Your task to perform on an android device: open app "Pluto TV - Live TV and Movies" (install if not already installed) Image 0: 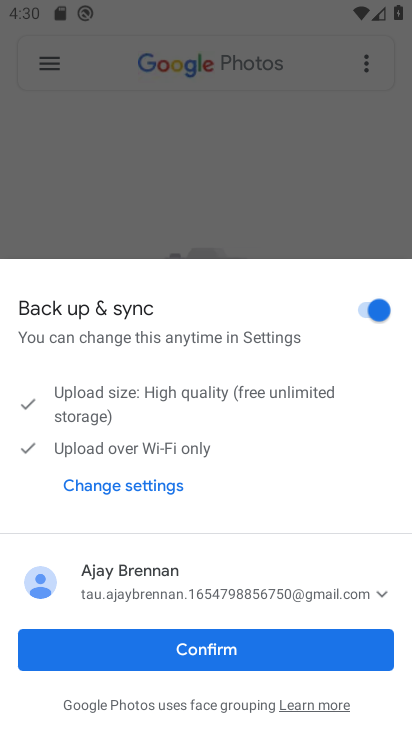
Step 0: press home button
Your task to perform on an android device: open app "Pluto TV - Live TV and Movies" (install if not already installed) Image 1: 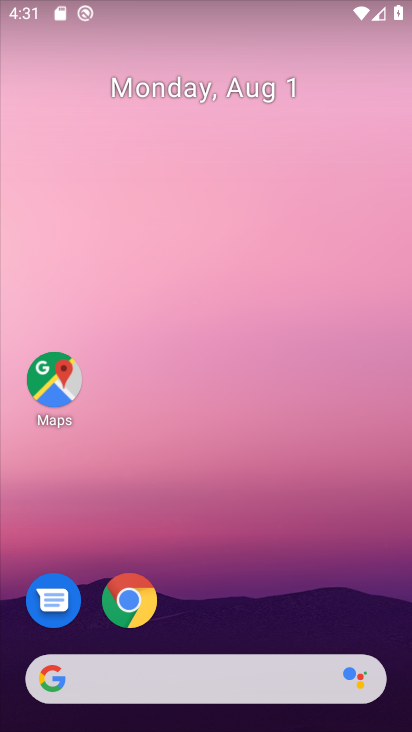
Step 1: drag from (267, 482) to (186, 102)
Your task to perform on an android device: open app "Pluto TV - Live TV and Movies" (install if not already installed) Image 2: 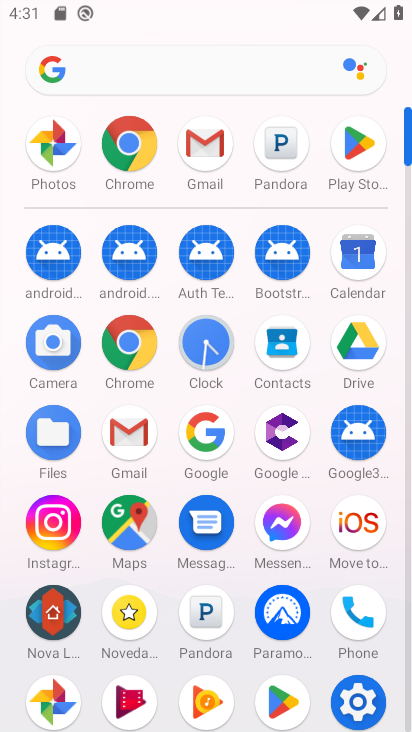
Step 2: click (360, 142)
Your task to perform on an android device: open app "Pluto TV - Live TV and Movies" (install if not already installed) Image 3: 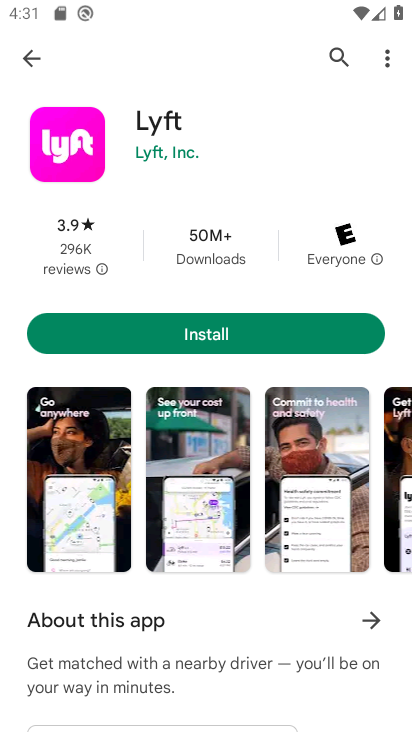
Step 3: click (334, 48)
Your task to perform on an android device: open app "Pluto TV - Live TV and Movies" (install if not already installed) Image 4: 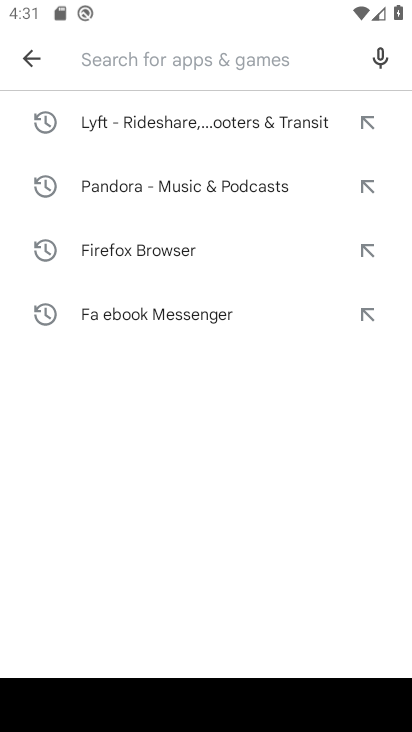
Step 4: type "Pluto TV - Live TV and Movies"
Your task to perform on an android device: open app "Pluto TV - Live TV and Movies" (install if not already installed) Image 5: 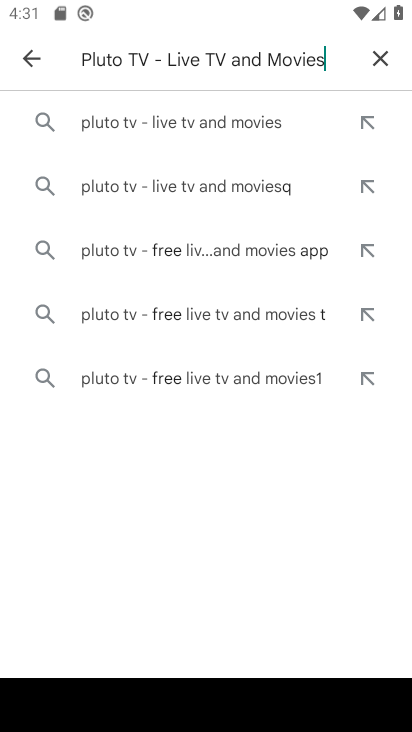
Step 5: press enter
Your task to perform on an android device: open app "Pluto TV - Live TV and Movies" (install if not already installed) Image 6: 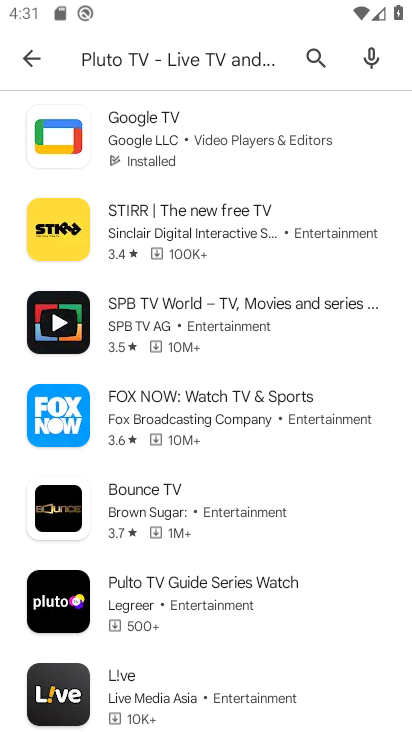
Step 6: task complete